Your task to perform on an android device: Open eBay Image 0: 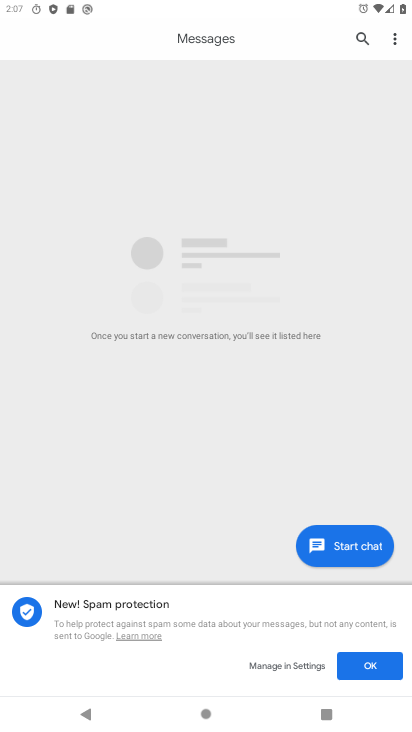
Step 0: press home button
Your task to perform on an android device: Open eBay Image 1: 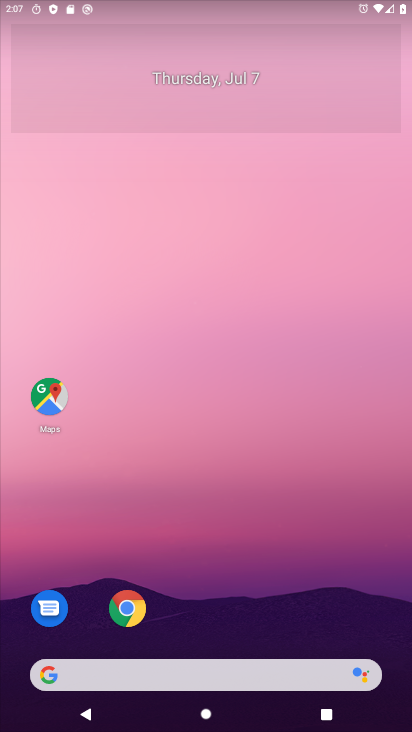
Step 1: click (126, 609)
Your task to perform on an android device: Open eBay Image 2: 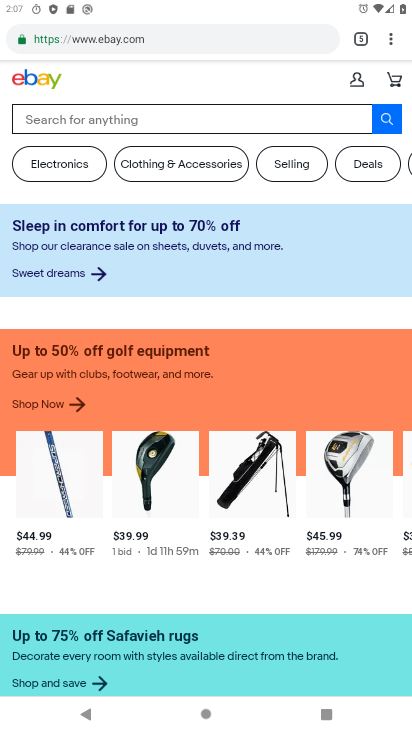
Step 2: task complete